Your task to perform on an android device: Clear all items from cart on ebay. Add bose quietcomfort 35 to the cart on ebay Image 0: 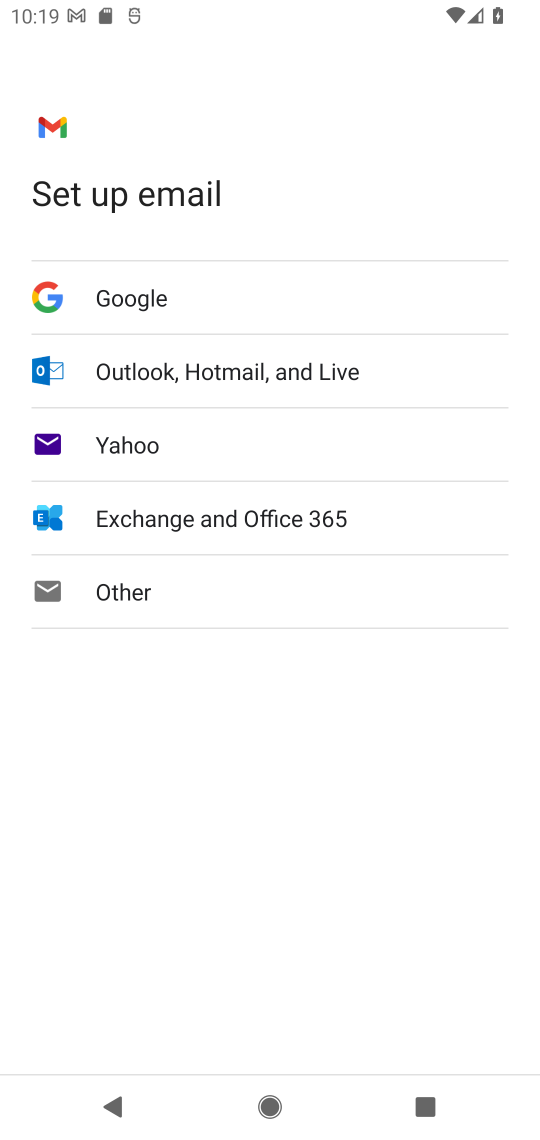
Step 0: press home button
Your task to perform on an android device: Clear all items from cart on ebay. Add bose quietcomfort 35 to the cart on ebay Image 1: 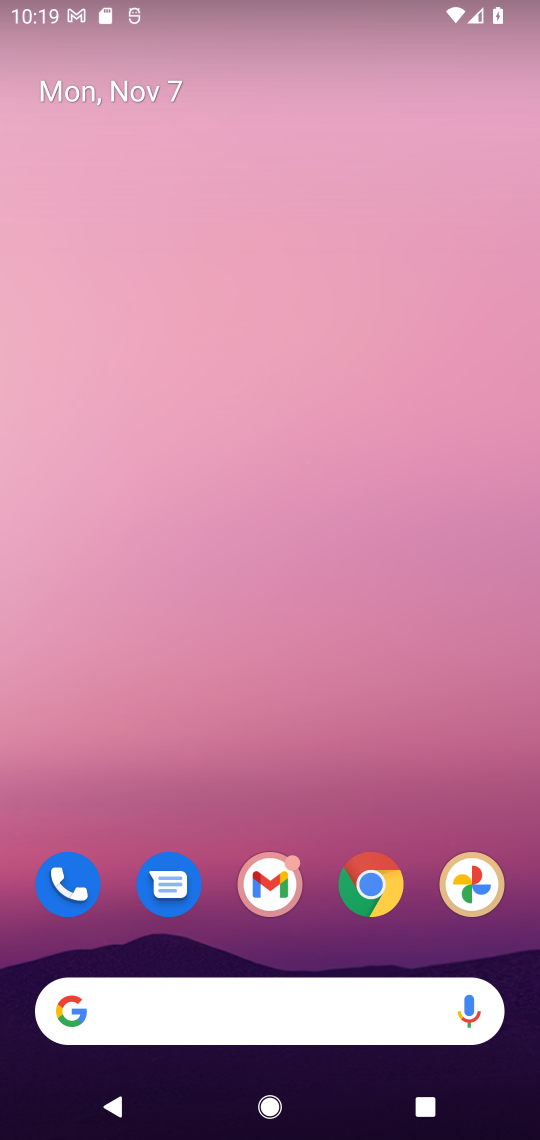
Step 1: click (388, 878)
Your task to perform on an android device: Clear all items from cart on ebay. Add bose quietcomfort 35 to the cart on ebay Image 2: 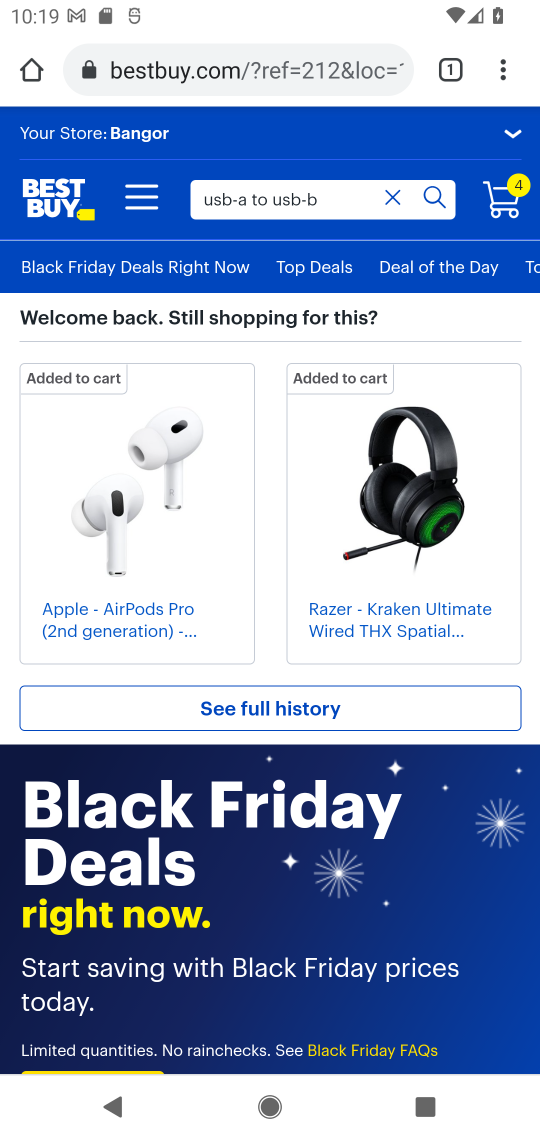
Step 2: click (242, 76)
Your task to perform on an android device: Clear all items from cart on ebay. Add bose quietcomfort 35 to the cart on ebay Image 3: 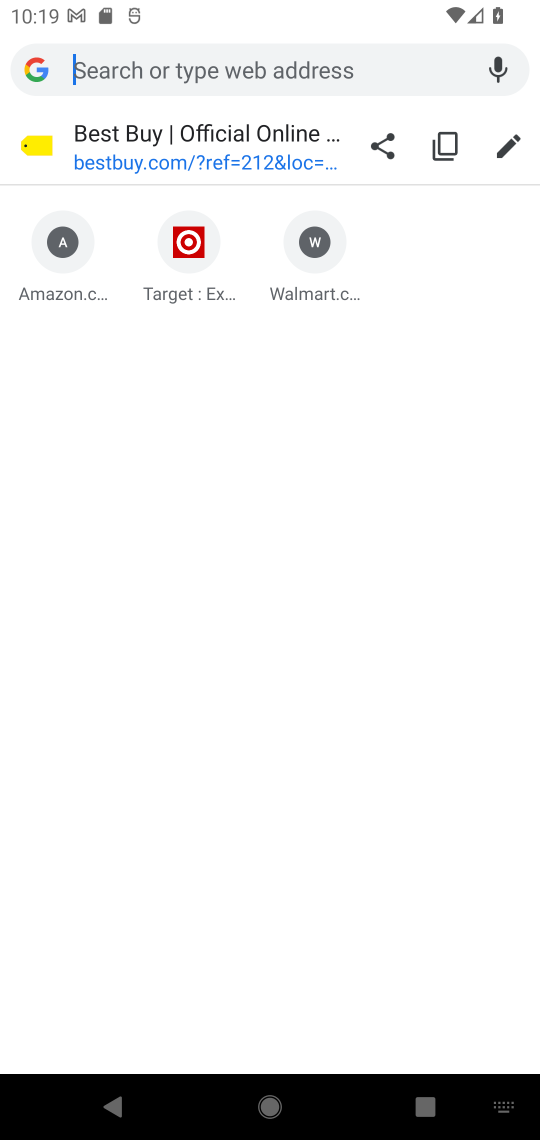
Step 3: type "ebay"
Your task to perform on an android device: Clear all items from cart on ebay. Add bose quietcomfort 35 to the cart on ebay Image 4: 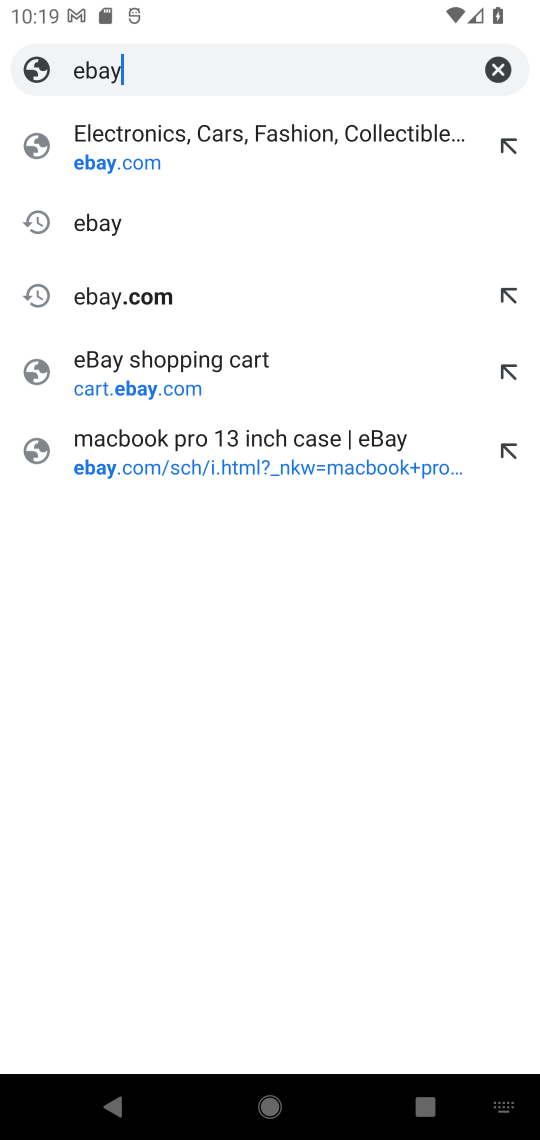
Step 4: click (126, 302)
Your task to perform on an android device: Clear all items from cart on ebay. Add bose quietcomfort 35 to the cart on ebay Image 5: 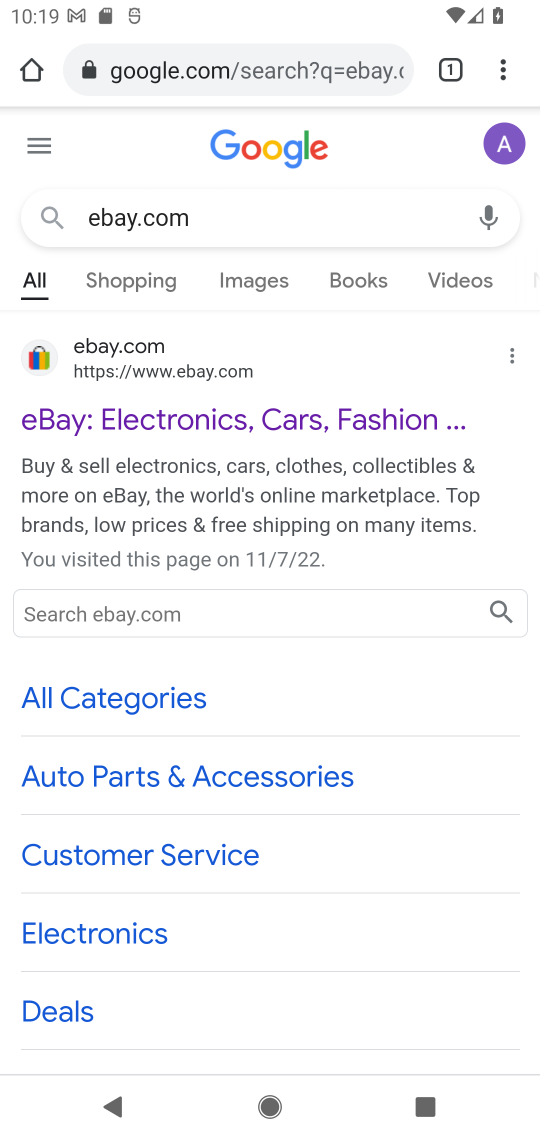
Step 5: click (167, 369)
Your task to perform on an android device: Clear all items from cart on ebay. Add bose quietcomfort 35 to the cart on ebay Image 6: 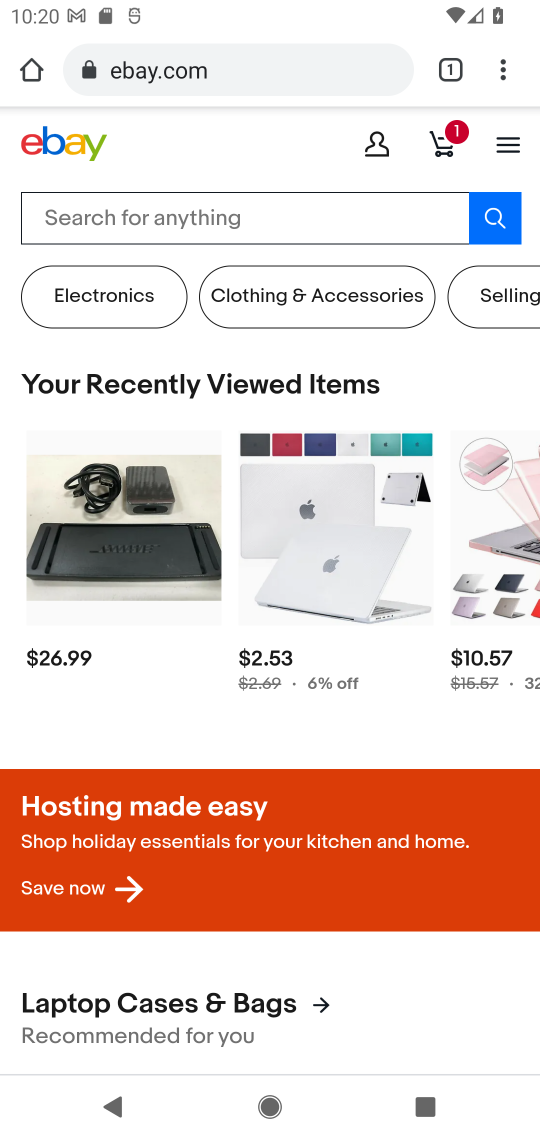
Step 6: click (438, 132)
Your task to perform on an android device: Clear all items from cart on ebay. Add bose quietcomfort 35 to the cart on ebay Image 7: 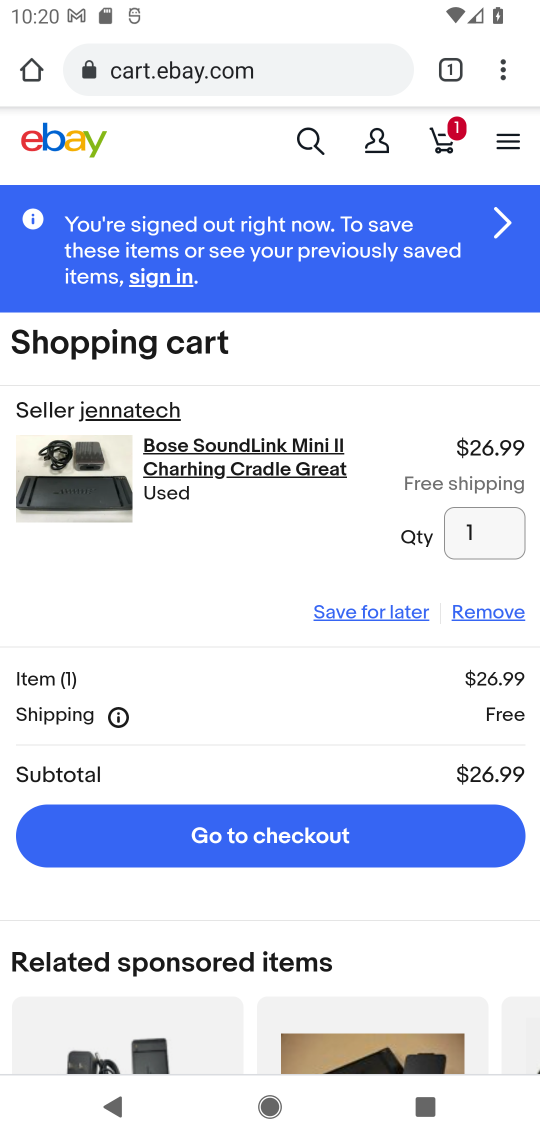
Step 7: click (476, 601)
Your task to perform on an android device: Clear all items from cart on ebay. Add bose quietcomfort 35 to the cart on ebay Image 8: 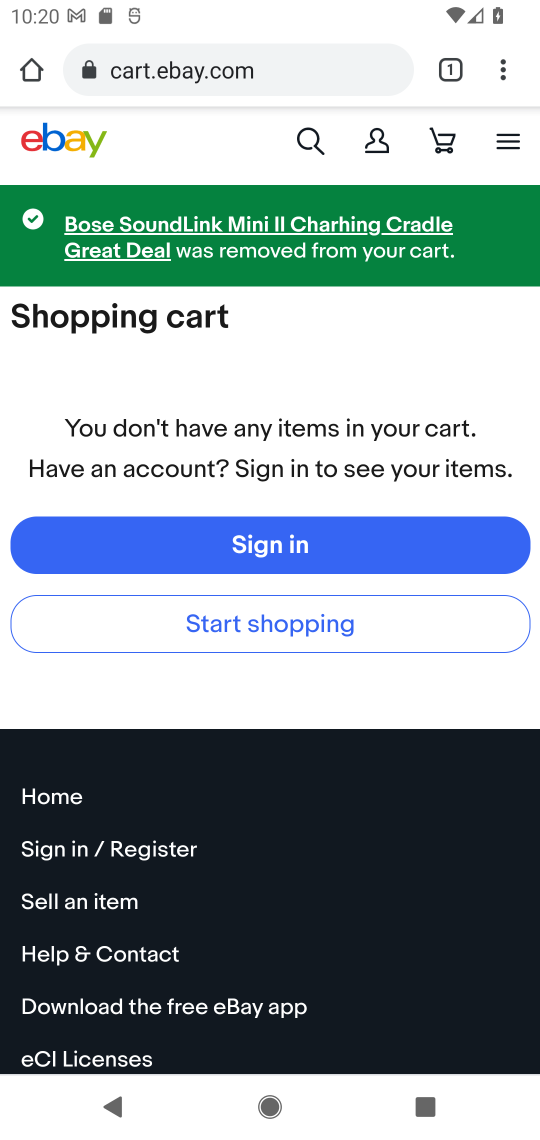
Step 8: click (304, 128)
Your task to perform on an android device: Clear all items from cart on ebay. Add bose quietcomfort 35 to the cart on ebay Image 9: 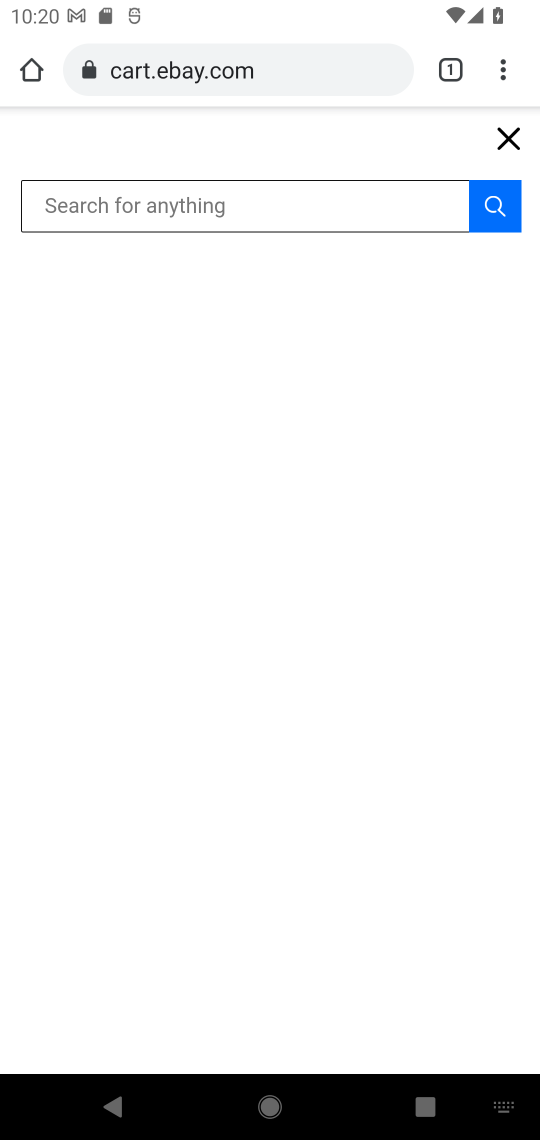
Step 9: type "bose quietcomfort 35"
Your task to perform on an android device: Clear all items from cart on ebay. Add bose quietcomfort 35 to the cart on ebay Image 10: 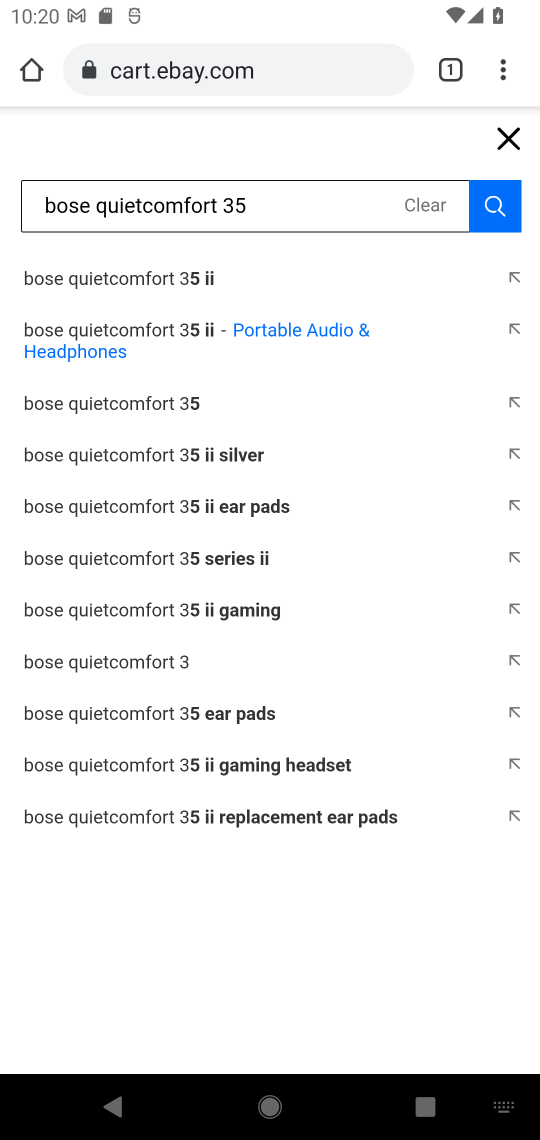
Step 10: click (147, 397)
Your task to perform on an android device: Clear all items from cart on ebay. Add bose quietcomfort 35 to the cart on ebay Image 11: 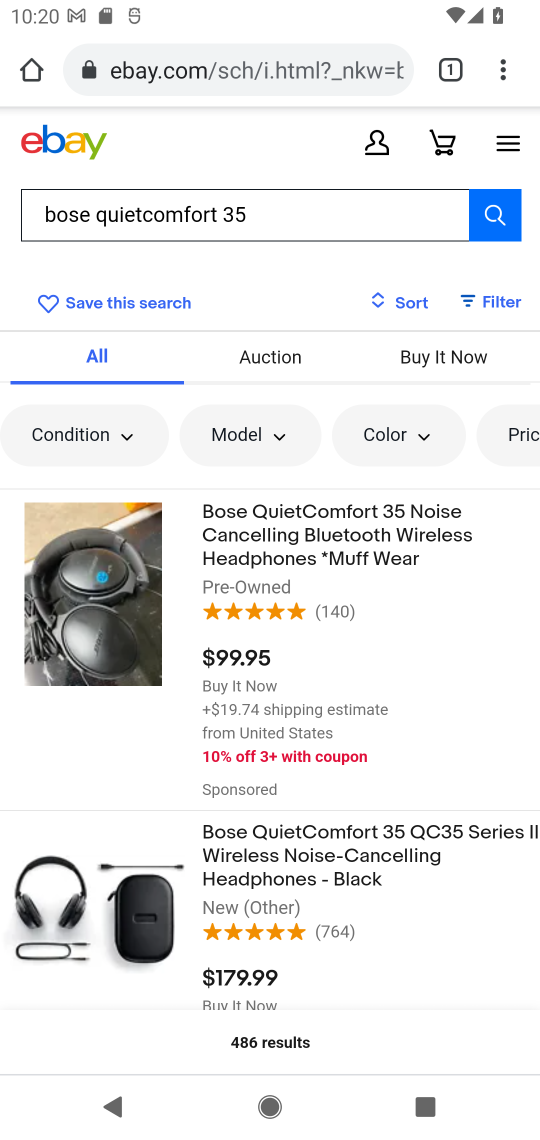
Step 11: click (100, 603)
Your task to perform on an android device: Clear all items from cart on ebay. Add bose quietcomfort 35 to the cart on ebay Image 12: 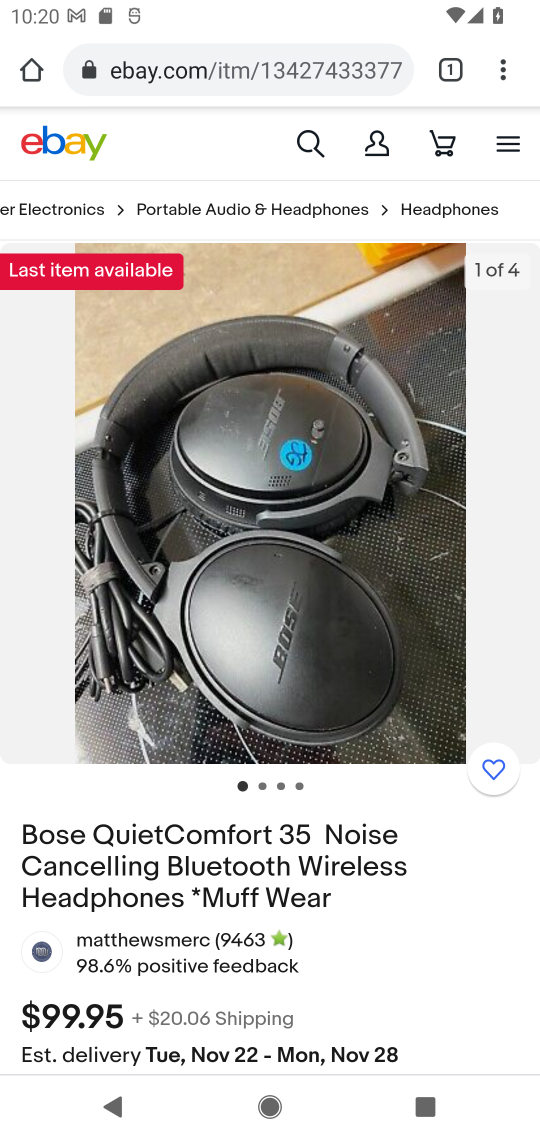
Step 12: drag from (374, 731) to (269, 262)
Your task to perform on an android device: Clear all items from cart on ebay. Add bose quietcomfort 35 to the cart on ebay Image 13: 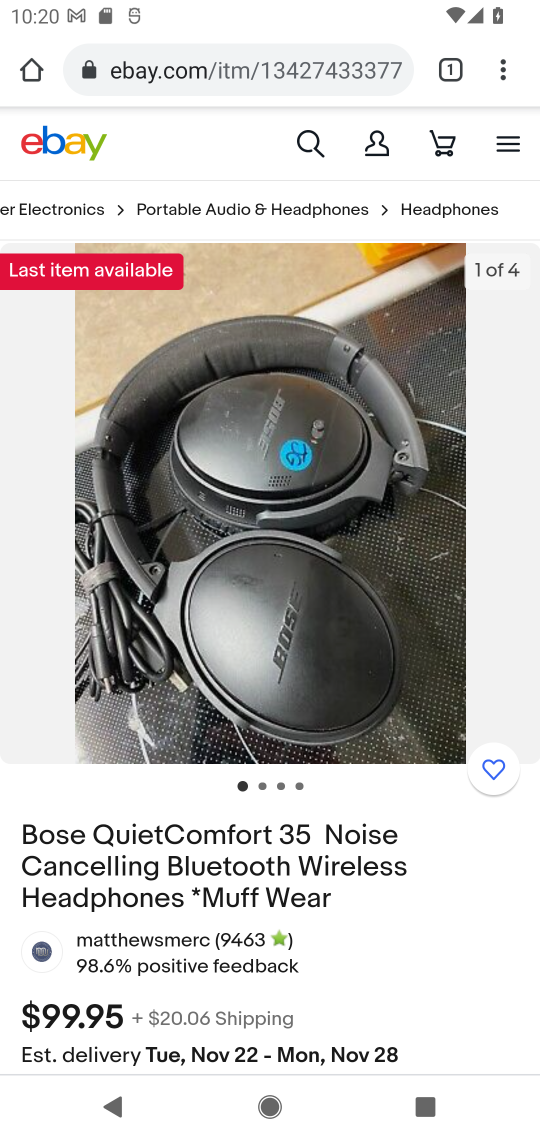
Step 13: drag from (404, 950) to (361, 628)
Your task to perform on an android device: Clear all items from cart on ebay. Add bose quietcomfort 35 to the cart on ebay Image 14: 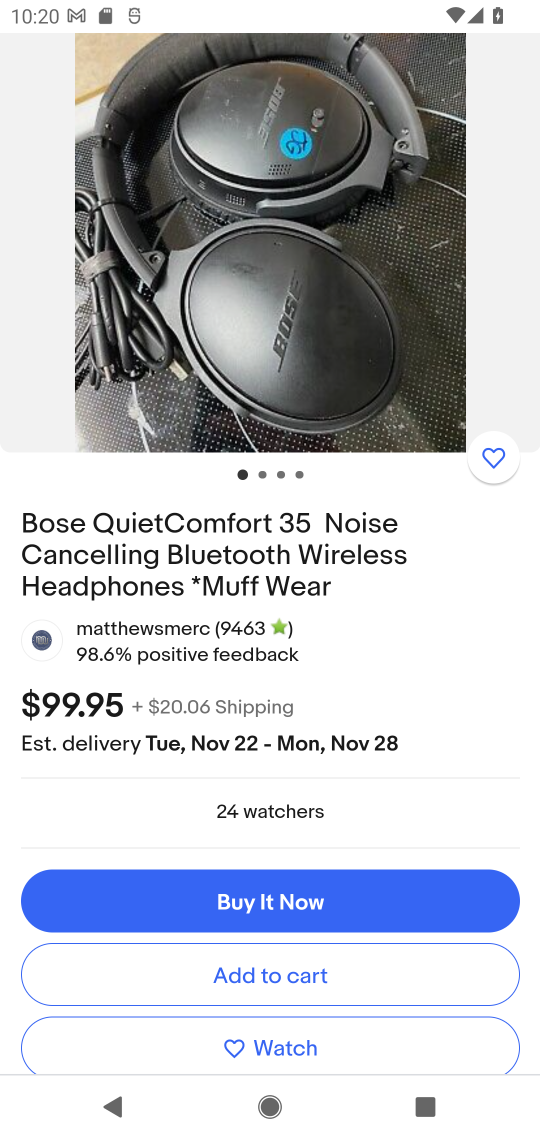
Step 14: click (286, 978)
Your task to perform on an android device: Clear all items from cart on ebay. Add bose quietcomfort 35 to the cart on ebay Image 15: 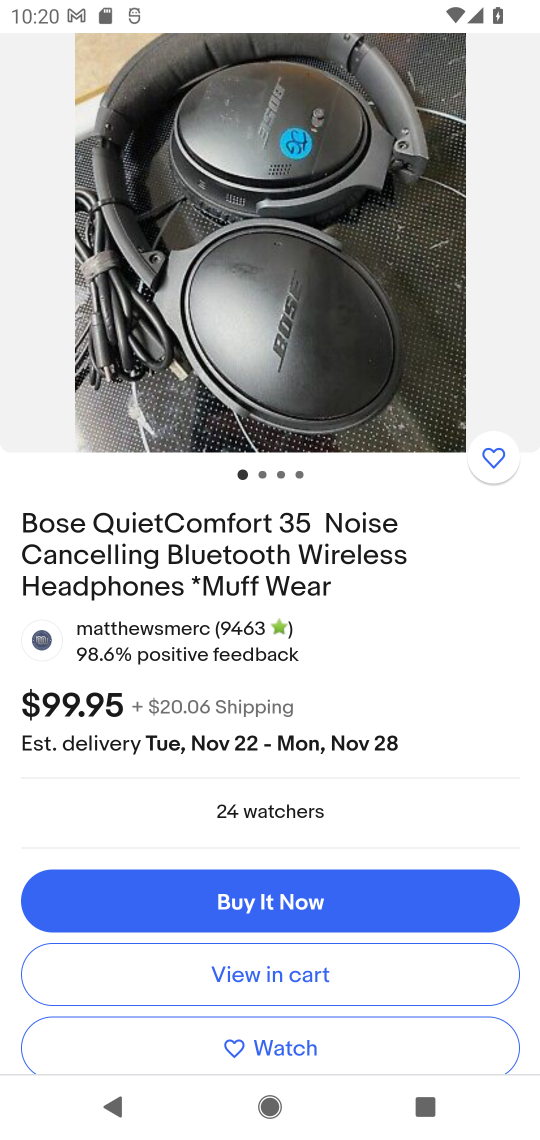
Step 15: click (252, 971)
Your task to perform on an android device: Clear all items from cart on ebay. Add bose quietcomfort 35 to the cart on ebay Image 16: 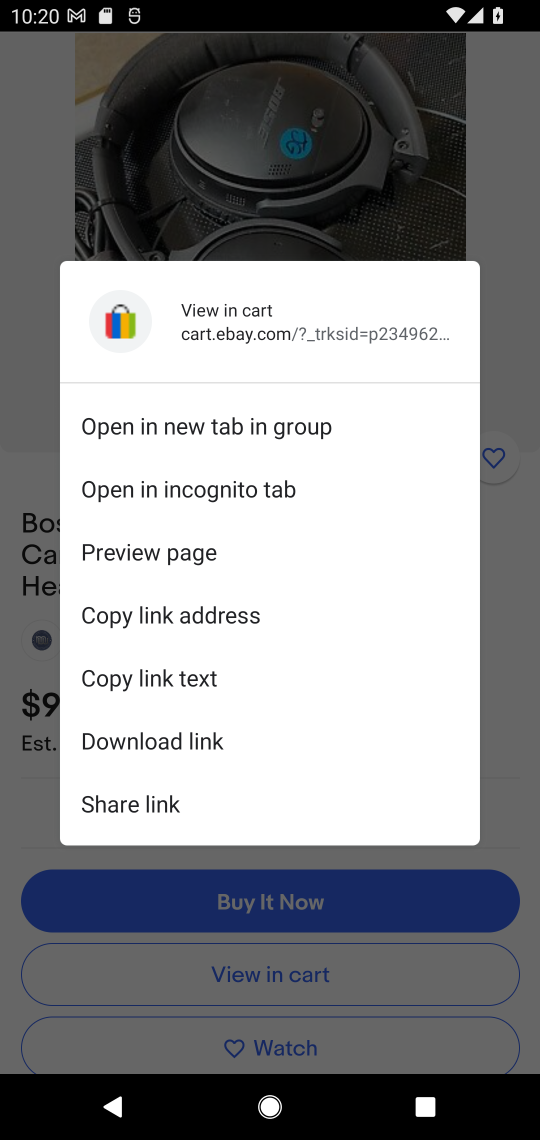
Step 16: click (405, 978)
Your task to perform on an android device: Clear all items from cart on ebay. Add bose quietcomfort 35 to the cart on ebay Image 17: 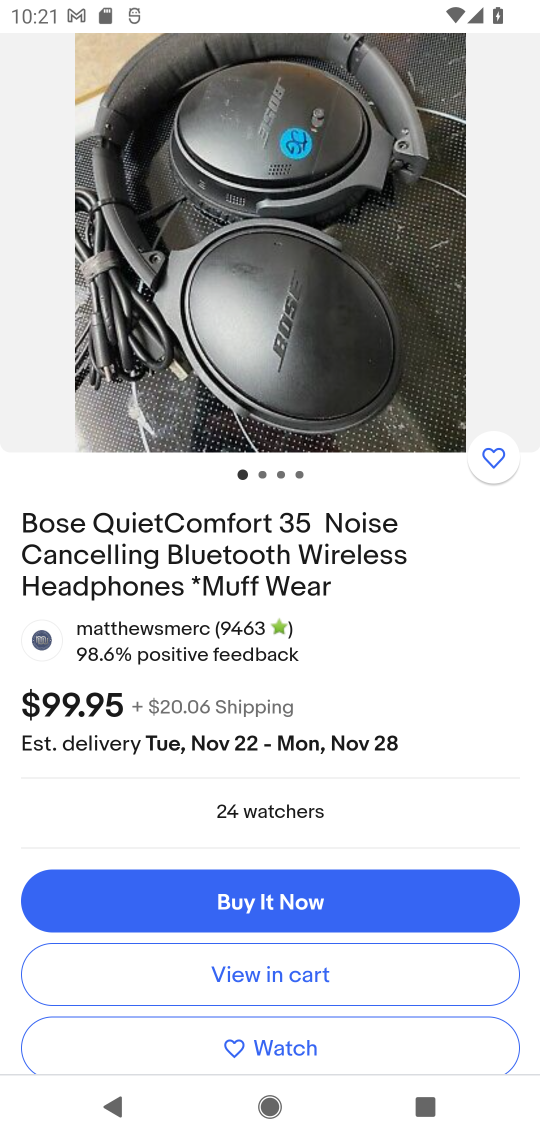
Step 17: click (267, 971)
Your task to perform on an android device: Clear all items from cart on ebay. Add bose quietcomfort 35 to the cart on ebay Image 18: 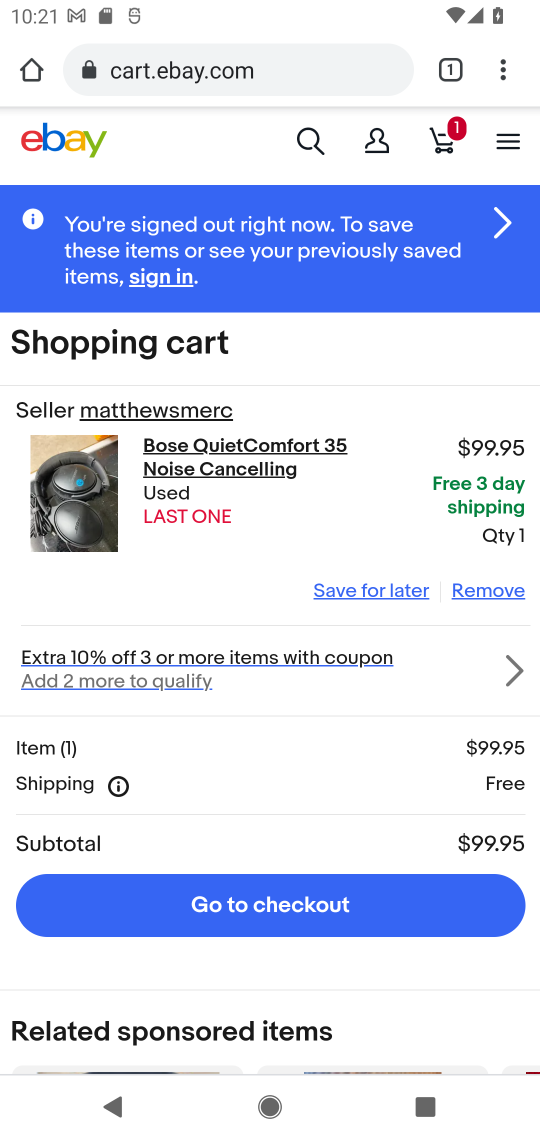
Step 18: task complete